Your task to perform on an android device: Open Google Maps and go to "Timeline" Image 0: 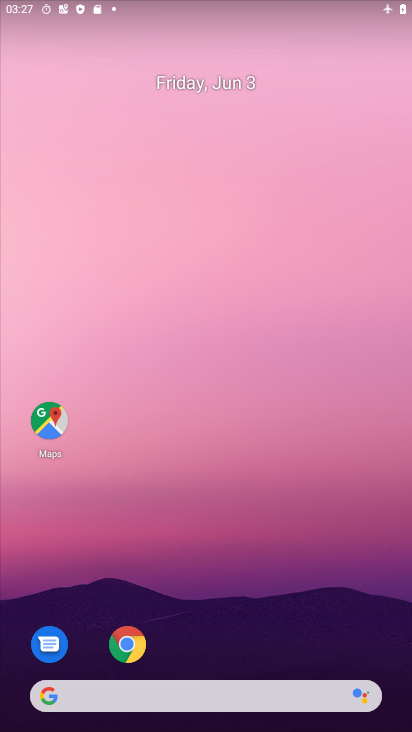
Step 0: click (200, 628)
Your task to perform on an android device: Open Google Maps and go to "Timeline" Image 1: 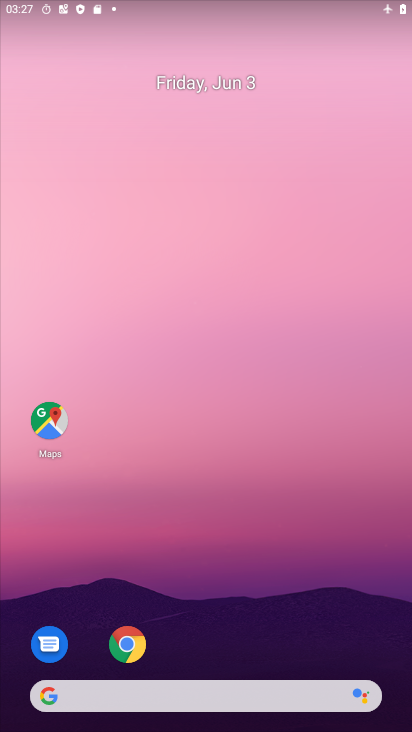
Step 1: click (63, 428)
Your task to perform on an android device: Open Google Maps and go to "Timeline" Image 2: 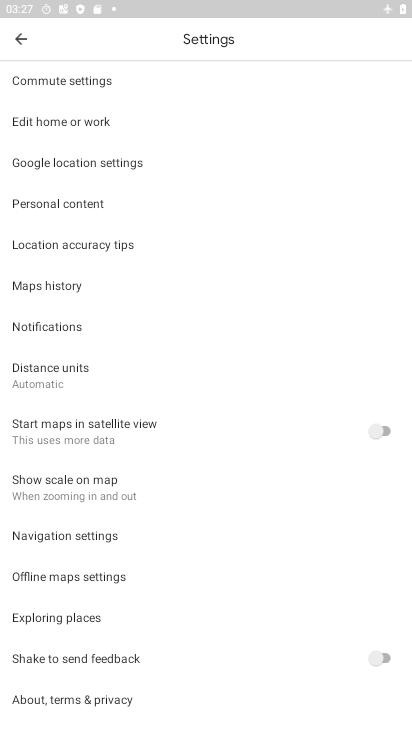
Step 2: click (20, 34)
Your task to perform on an android device: Open Google Maps and go to "Timeline" Image 3: 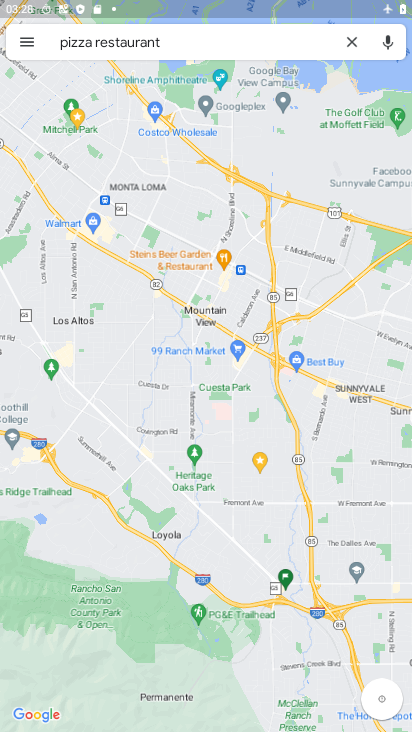
Step 3: click (23, 38)
Your task to perform on an android device: Open Google Maps and go to "Timeline" Image 4: 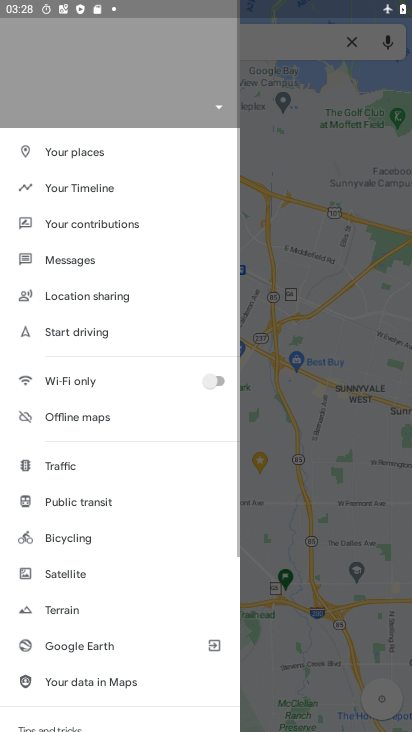
Step 4: click (96, 181)
Your task to perform on an android device: Open Google Maps and go to "Timeline" Image 5: 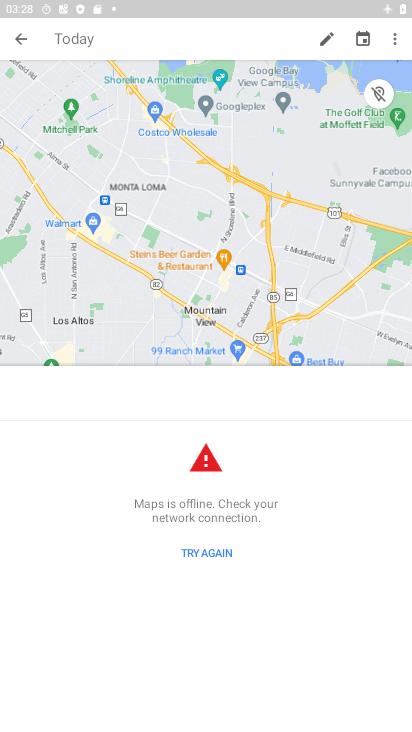
Step 5: task complete